Your task to perform on an android device: delete location history Image 0: 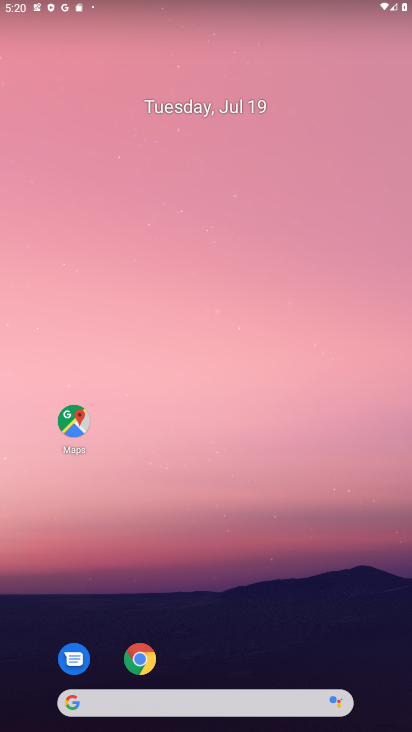
Step 0: click (293, 331)
Your task to perform on an android device: delete location history Image 1: 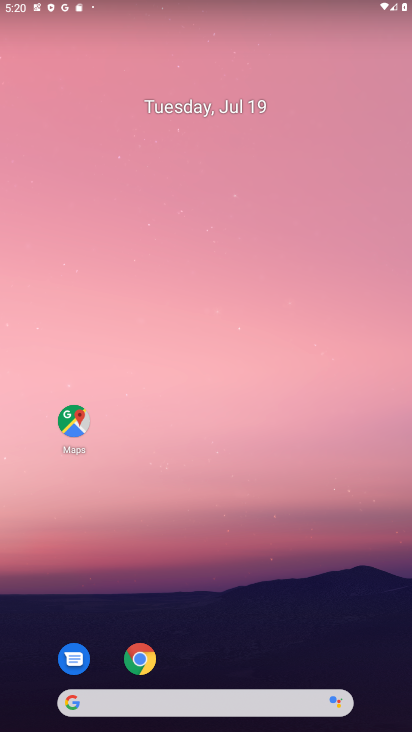
Step 1: drag from (185, 623) to (192, 169)
Your task to perform on an android device: delete location history Image 2: 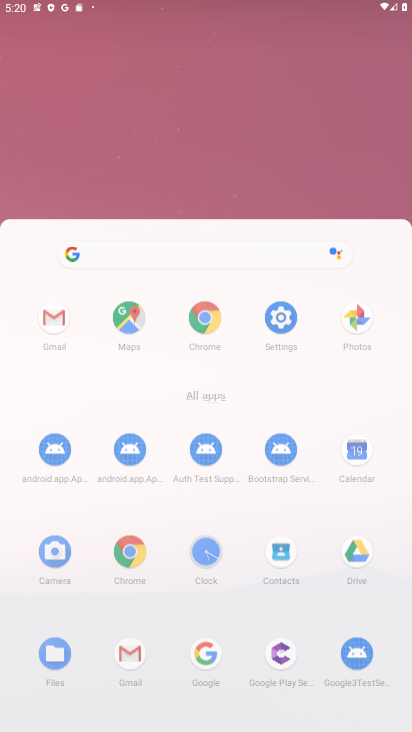
Step 2: drag from (226, 528) to (181, 11)
Your task to perform on an android device: delete location history Image 3: 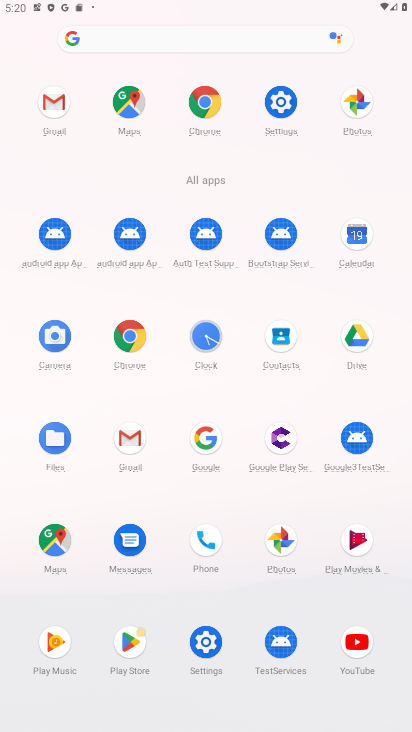
Step 3: click (287, 93)
Your task to perform on an android device: delete location history Image 4: 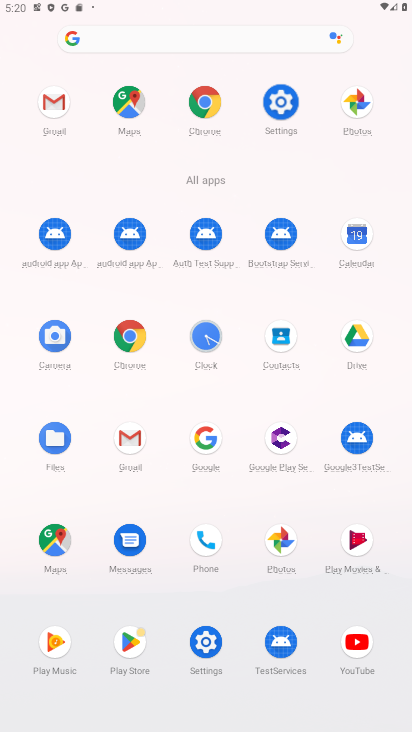
Step 4: click (287, 93)
Your task to perform on an android device: delete location history Image 5: 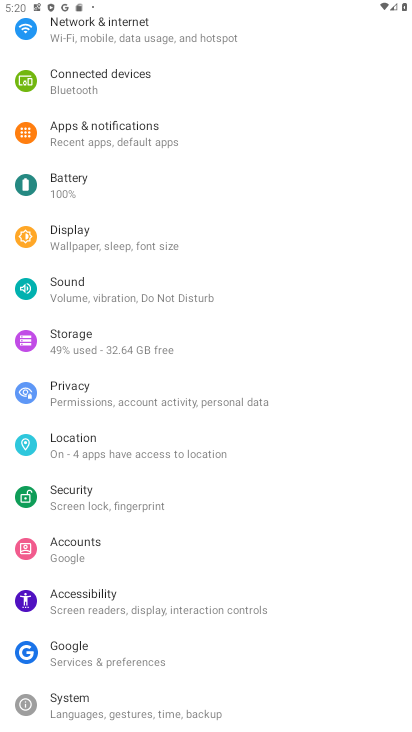
Step 5: click (285, 96)
Your task to perform on an android device: delete location history Image 6: 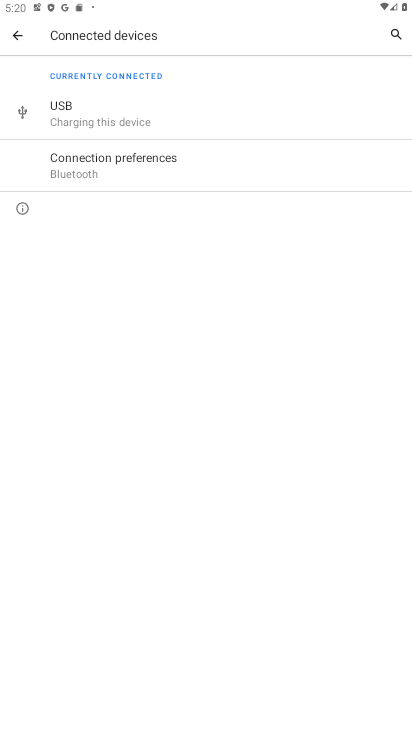
Step 6: click (21, 30)
Your task to perform on an android device: delete location history Image 7: 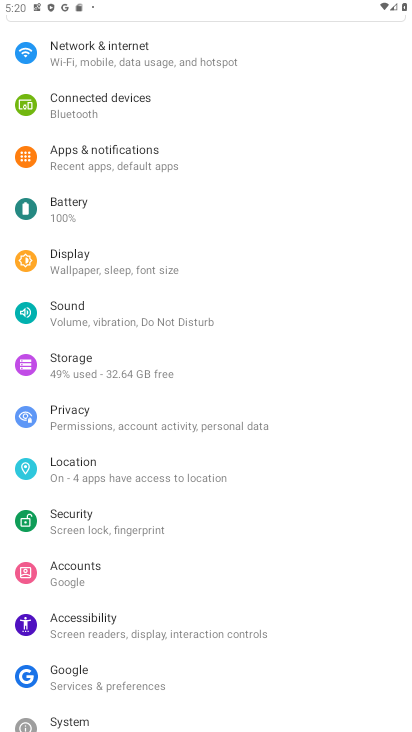
Step 7: click (64, 469)
Your task to perform on an android device: delete location history Image 8: 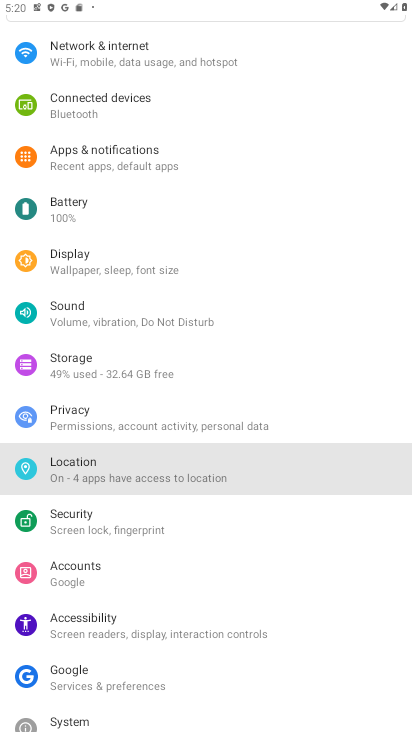
Step 8: click (66, 469)
Your task to perform on an android device: delete location history Image 9: 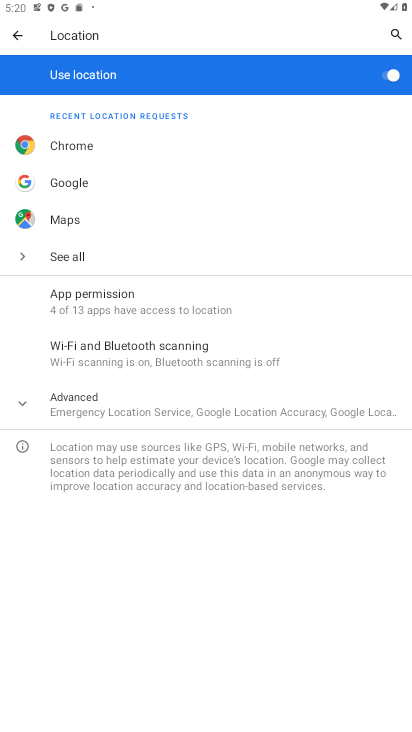
Step 9: click (156, 406)
Your task to perform on an android device: delete location history Image 10: 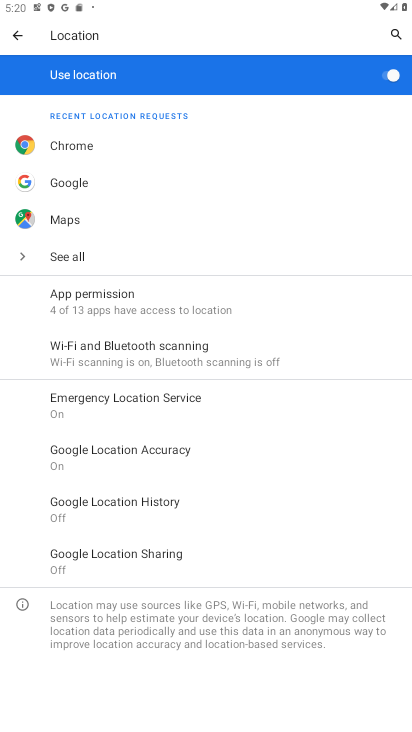
Step 10: click (119, 504)
Your task to perform on an android device: delete location history Image 11: 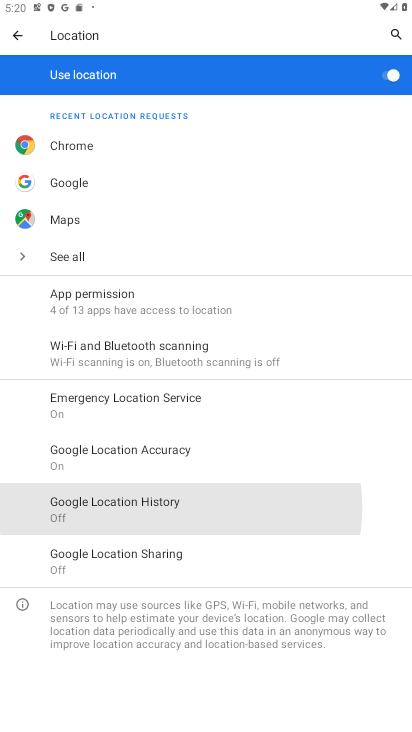
Step 11: click (117, 506)
Your task to perform on an android device: delete location history Image 12: 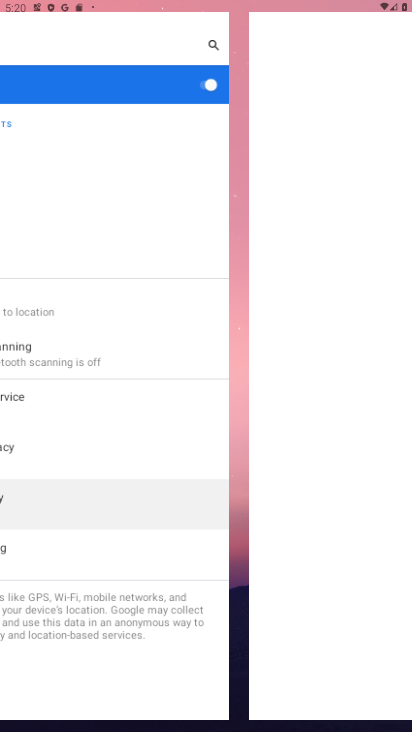
Step 12: click (117, 506)
Your task to perform on an android device: delete location history Image 13: 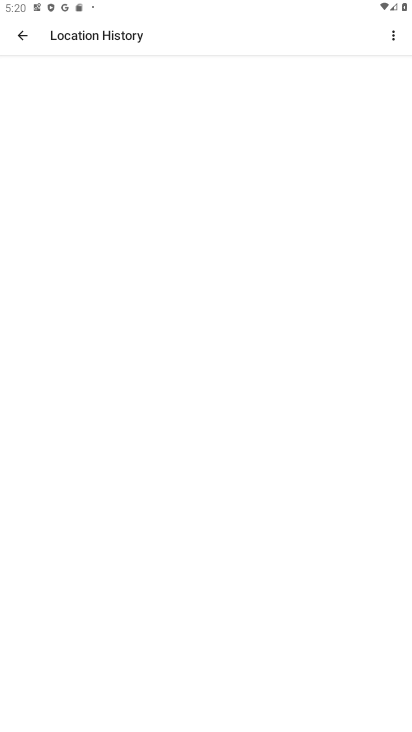
Step 13: click (117, 502)
Your task to perform on an android device: delete location history Image 14: 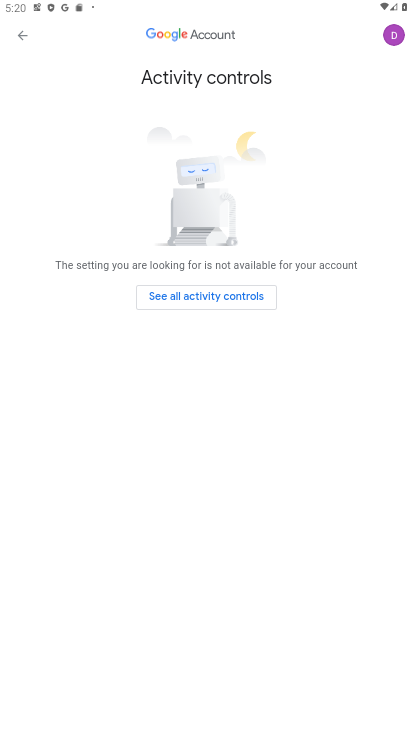
Step 14: click (202, 285)
Your task to perform on an android device: delete location history Image 15: 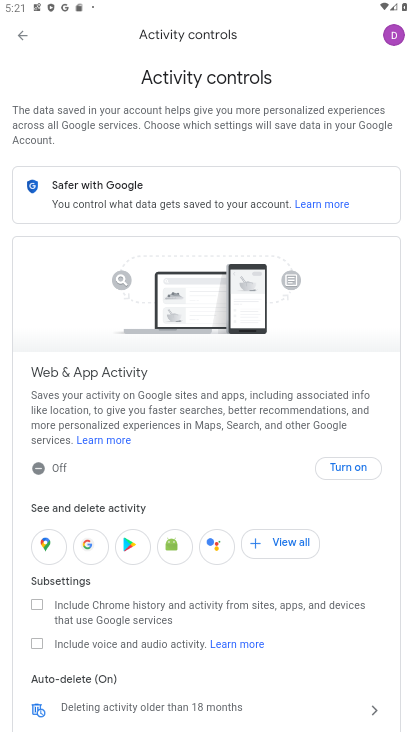
Step 15: drag from (265, 555) to (258, 267)
Your task to perform on an android device: delete location history Image 16: 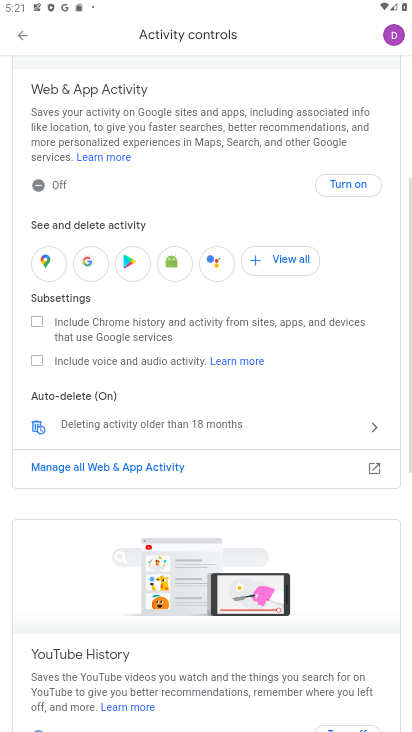
Step 16: drag from (228, 547) to (224, 319)
Your task to perform on an android device: delete location history Image 17: 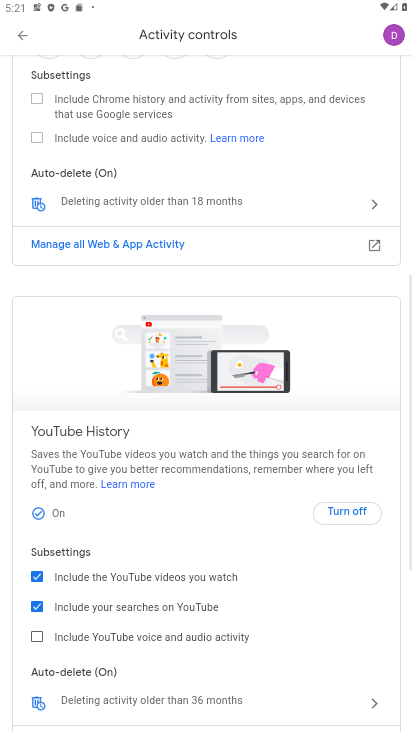
Step 17: drag from (237, 583) to (174, 188)
Your task to perform on an android device: delete location history Image 18: 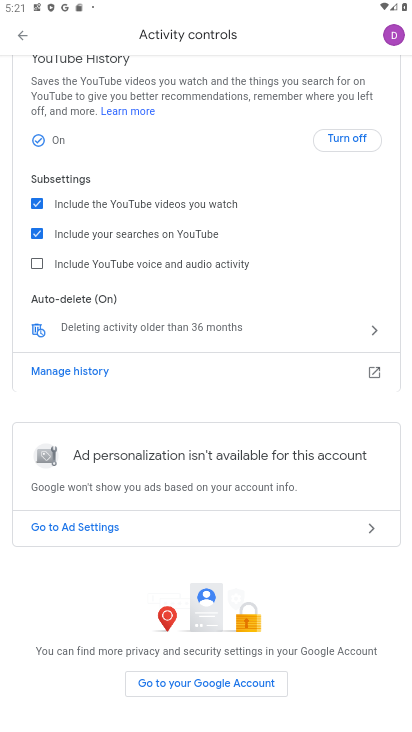
Step 18: drag from (147, 428) to (164, 531)
Your task to perform on an android device: delete location history Image 19: 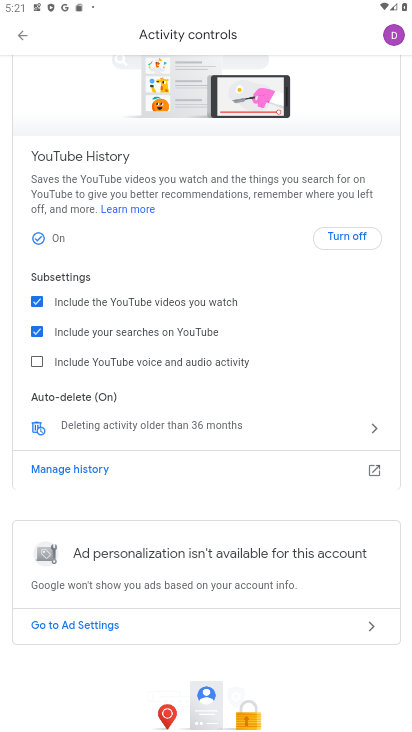
Step 19: click (75, 407)
Your task to perform on an android device: delete location history Image 20: 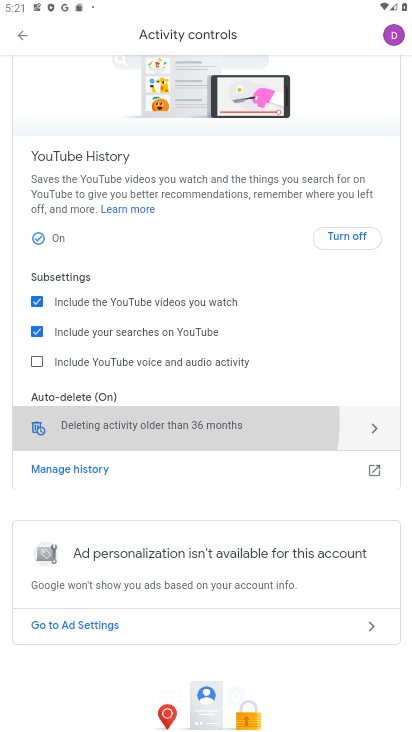
Step 20: click (75, 408)
Your task to perform on an android device: delete location history Image 21: 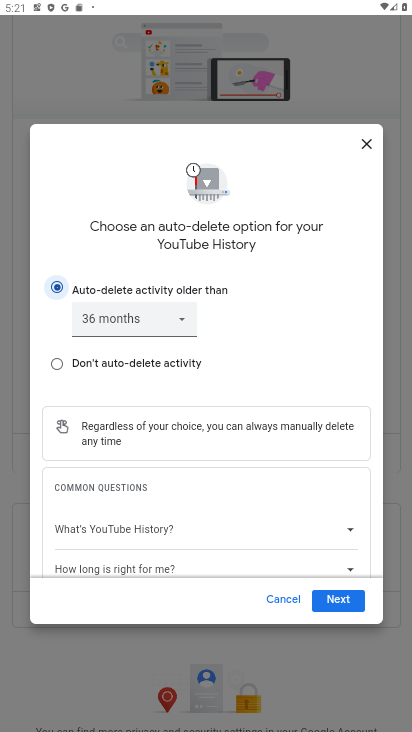
Step 21: click (342, 601)
Your task to perform on an android device: delete location history Image 22: 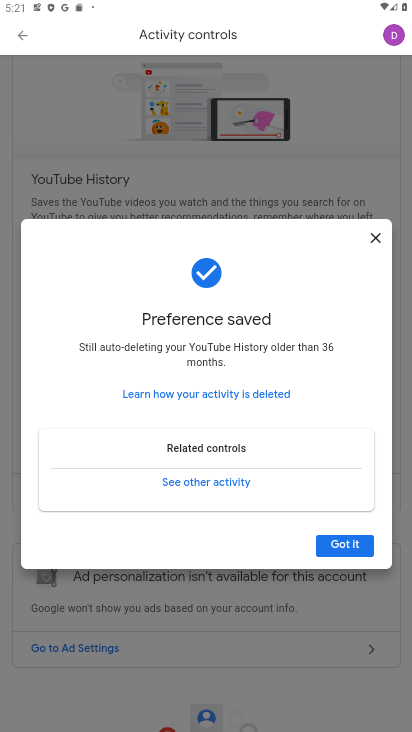
Step 22: click (356, 548)
Your task to perform on an android device: delete location history Image 23: 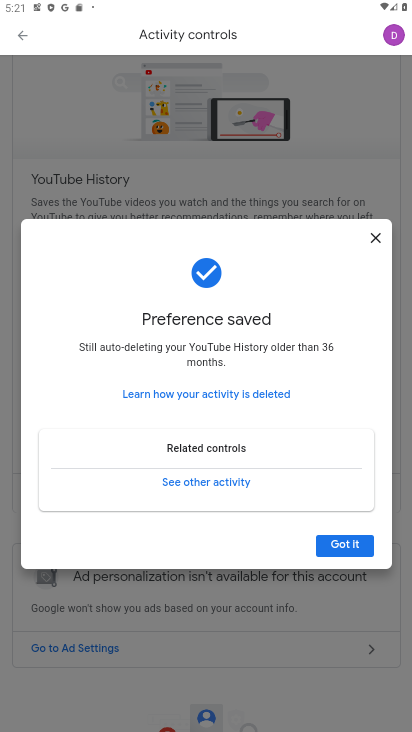
Step 23: task complete